Your task to perform on an android device: open a bookmark in the chrome app Image 0: 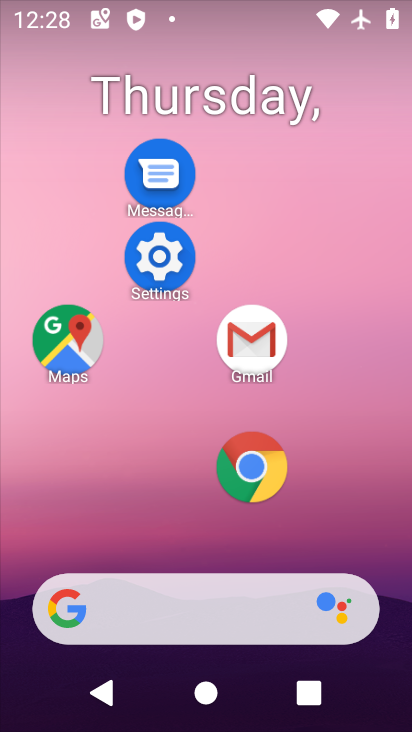
Step 0: drag from (210, 546) to (250, 161)
Your task to perform on an android device: open a bookmark in the chrome app Image 1: 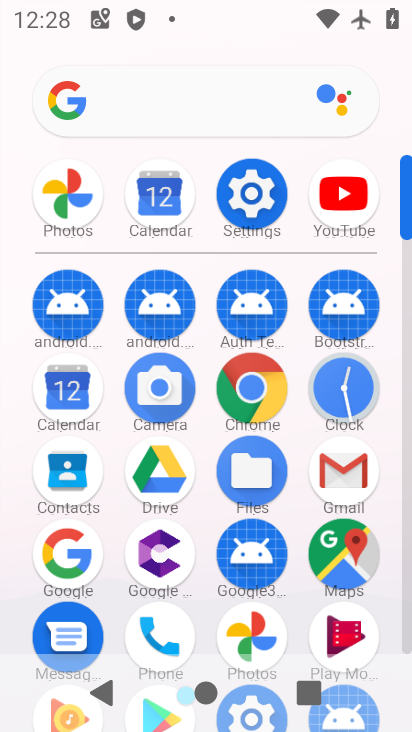
Step 1: click (262, 375)
Your task to perform on an android device: open a bookmark in the chrome app Image 2: 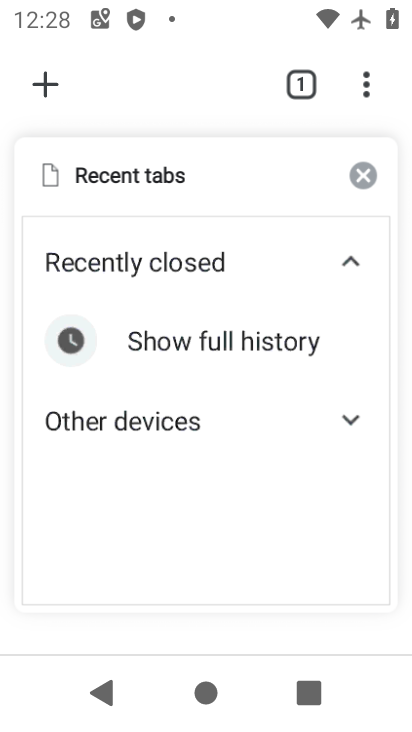
Step 2: drag from (165, 586) to (215, 330)
Your task to perform on an android device: open a bookmark in the chrome app Image 3: 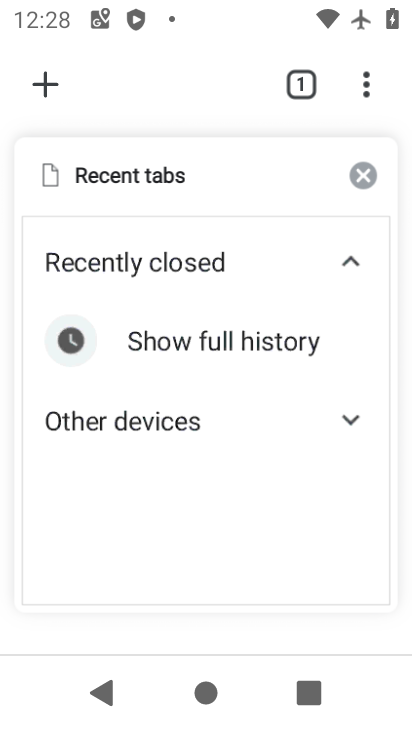
Step 3: click (308, 251)
Your task to perform on an android device: open a bookmark in the chrome app Image 4: 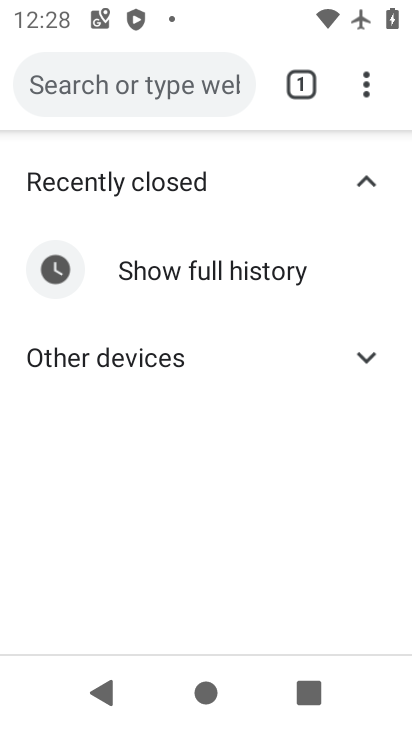
Step 4: click (362, 77)
Your task to perform on an android device: open a bookmark in the chrome app Image 5: 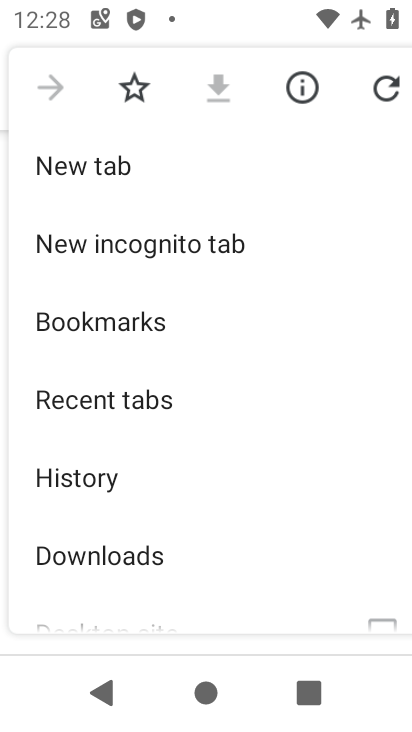
Step 5: click (133, 317)
Your task to perform on an android device: open a bookmark in the chrome app Image 6: 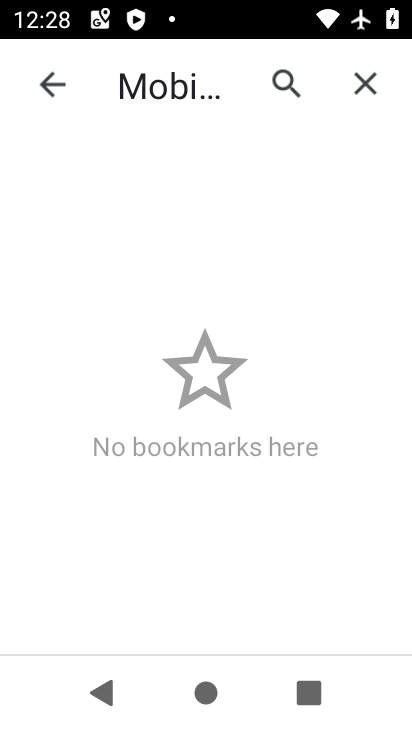
Step 6: drag from (192, 528) to (219, 400)
Your task to perform on an android device: open a bookmark in the chrome app Image 7: 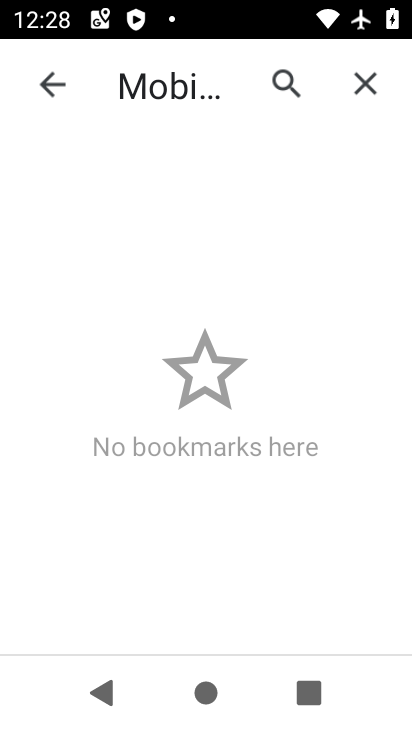
Step 7: drag from (195, 591) to (225, 482)
Your task to perform on an android device: open a bookmark in the chrome app Image 8: 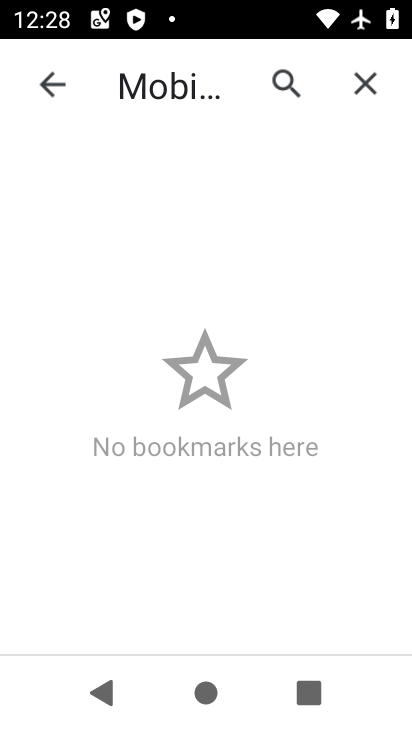
Step 8: drag from (225, 532) to (271, 402)
Your task to perform on an android device: open a bookmark in the chrome app Image 9: 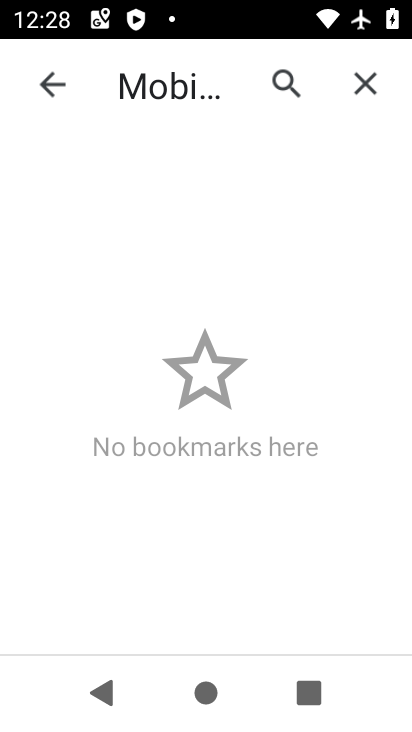
Step 9: drag from (205, 466) to (268, 229)
Your task to perform on an android device: open a bookmark in the chrome app Image 10: 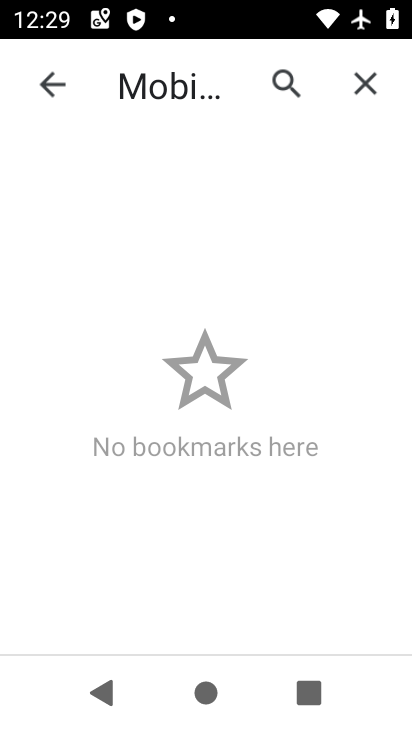
Step 10: click (262, 216)
Your task to perform on an android device: open a bookmark in the chrome app Image 11: 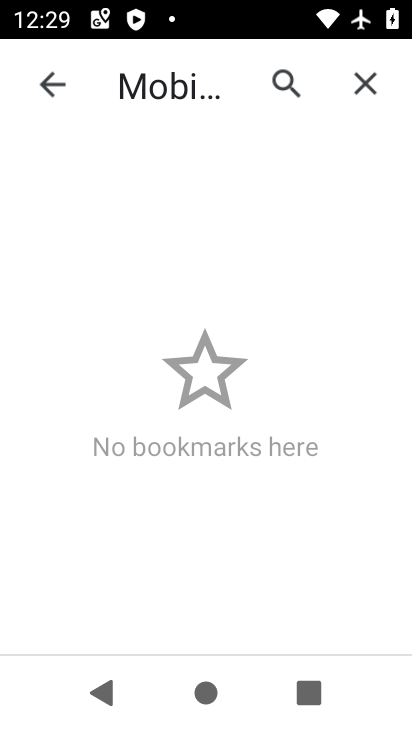
Step 11: task complete